Your task to perform on an android device: open wifi settings Image 0: 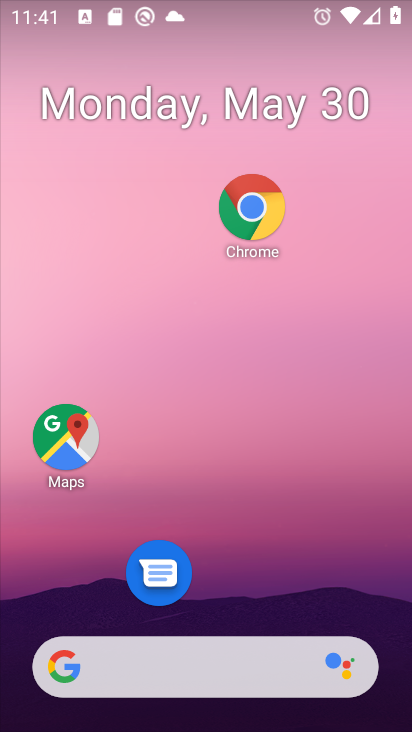
Step 0: drag from (237, 532) to (399, 171)
Your task to perform on an android device: open wifi settings Image 1: 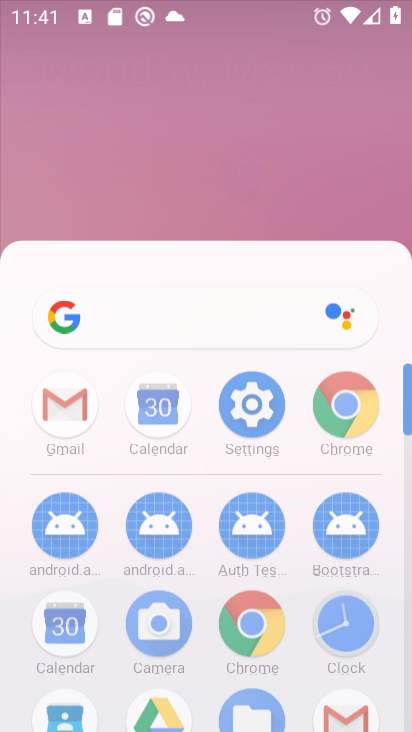
Step 1: drag from (243, 277) to (234, 132)
Your task to perform on an android device: open wifi settings Image 2: 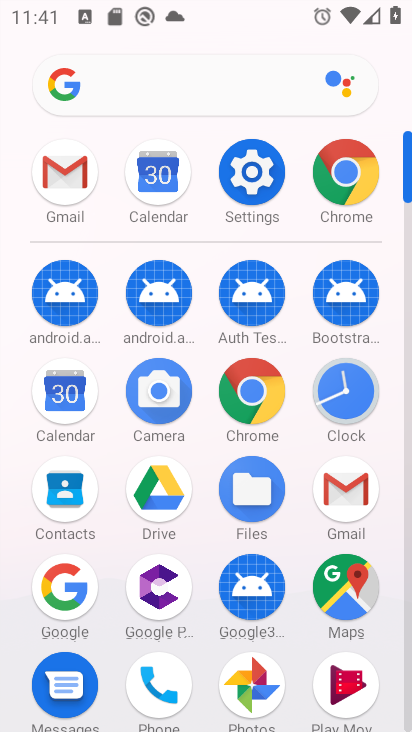
Step 2: click (270, 187)
Your task to perform on an android device: open wifi settings Image 3: 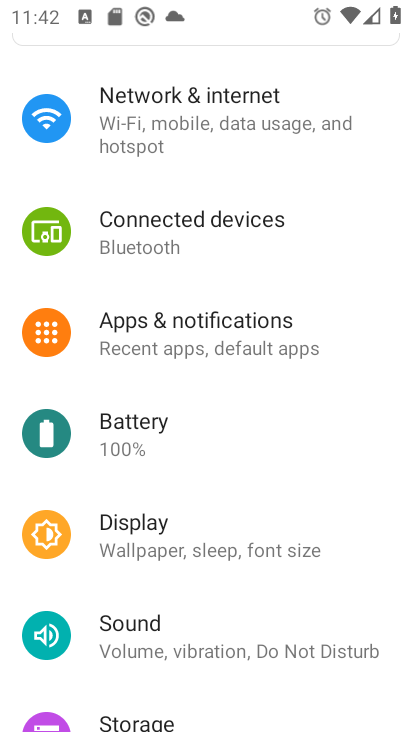
Step 3: click (241, 141)
Your task to perform on an android device: open wifi settings Image 4: 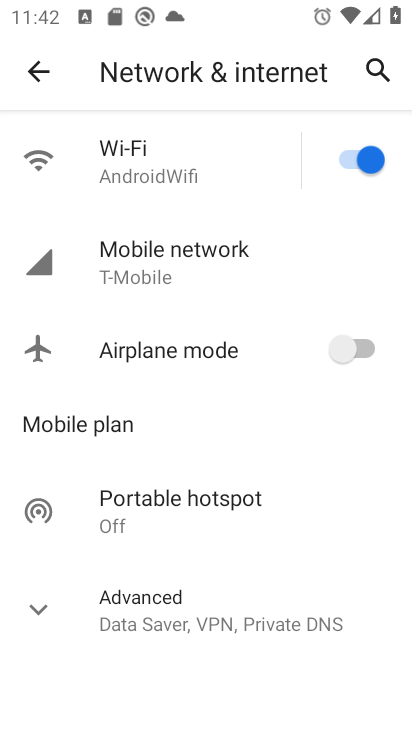
Step 4: click (164, 160)
Your task to perform on an android device: open wifi settings Image 5: 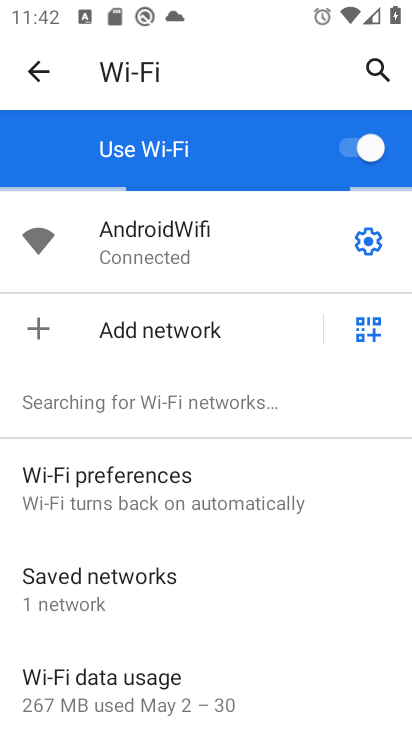
Step 5: task complete